Your task to perform on an android device: turn off improve location accuracy Image 0: 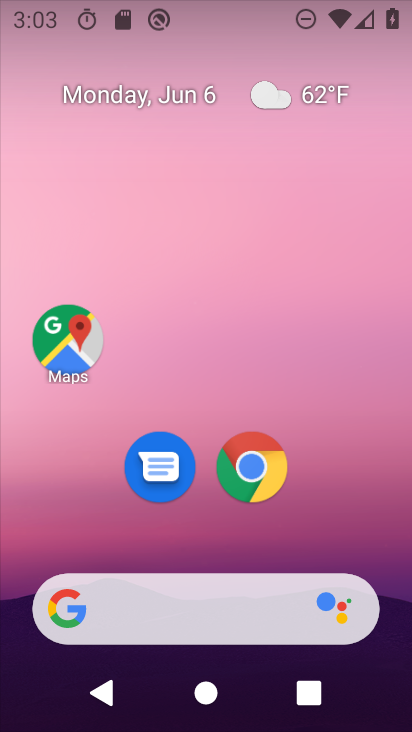
Step 0: drag from (212, 543) to (209, 103)
Your task to perform on an android device: turn off improve location accuracy Image 1: 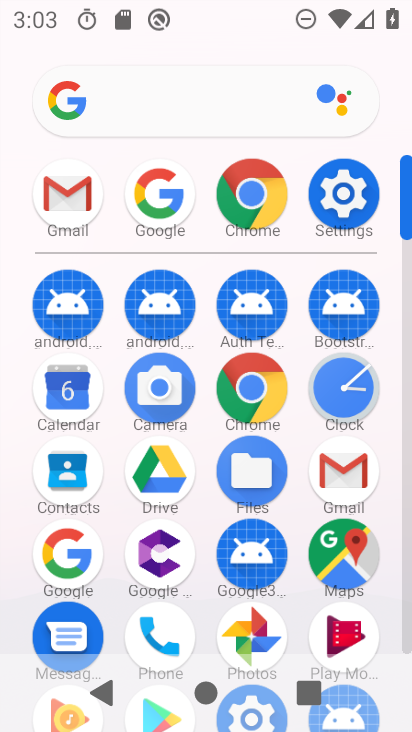
Step 1: click (350, 202)
Your task to perform on an android device: turn off improve location accuracy Image 2: 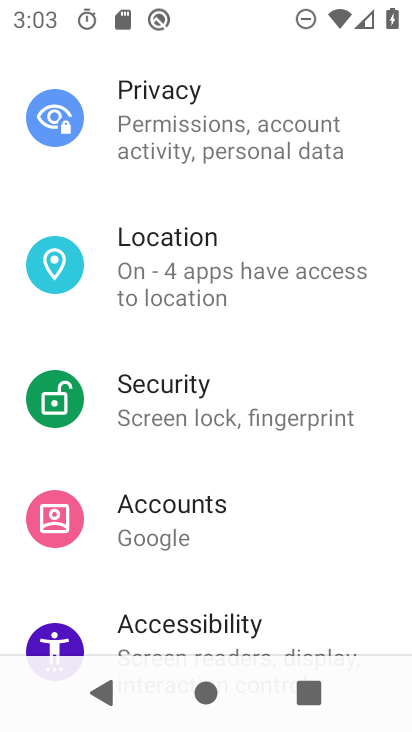
Step 2: drag from (239, 221) to (224, 433)
Your task to perform on an android device: turn off improve location accuracy Image 3: 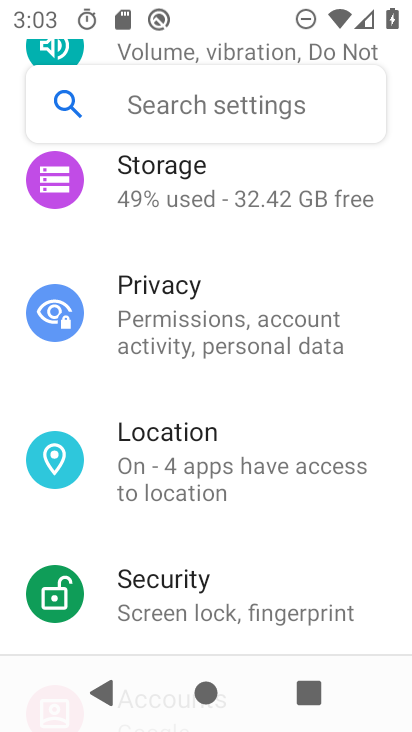
Step 3: drag from (212, 267) to (216, 532)
Your task to perform on an android device: turn off improve location accuracy Image 4: 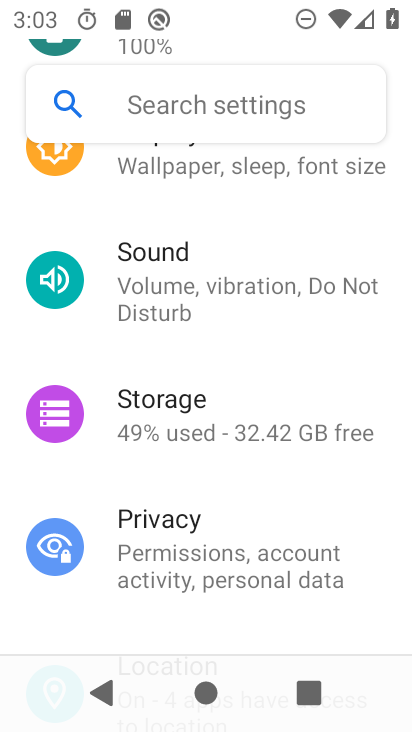
Step 4: drag from (203, 336) to (205, 591)
Your task to perform on an android device: turn off improve location accuracy Image 5: 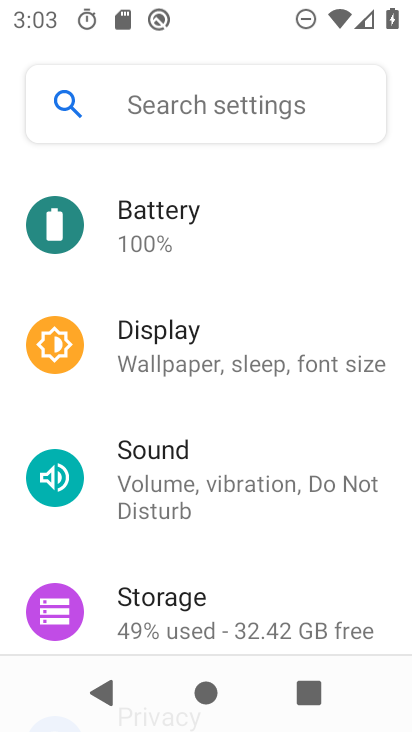
Step 5: drag from (194, 606) to (203, 288)
Your task to perform on an android device: turn off improve location accuracy Image 6: 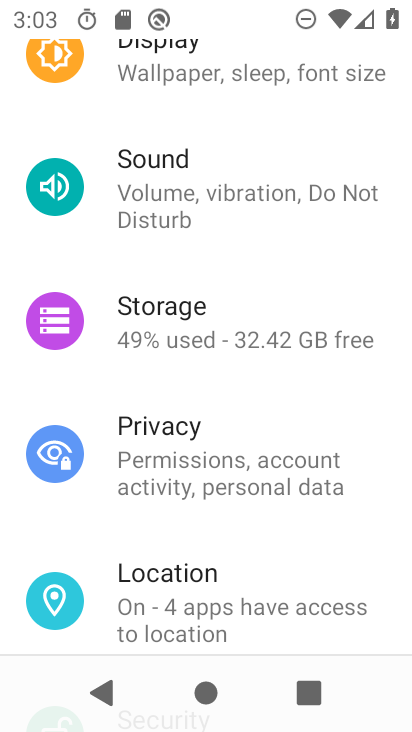
Step 6: click (181, 614)
Your task to perform on an android device: turn off improve location accuracy Image 7: 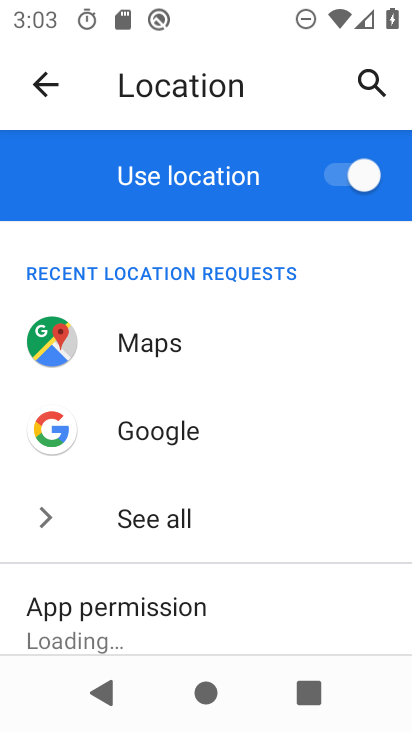
Step 7: drag from (170, 613) to (203, 268)
Your task to perform on an android device: turn off improve location accuracy Image 8: 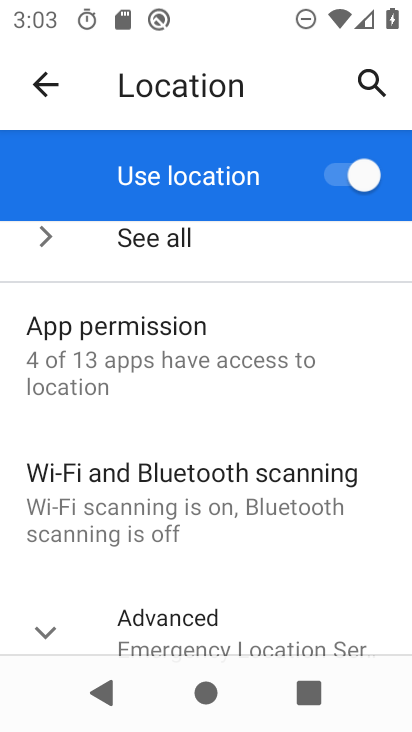
Step 8: drag from (203, 580) to (241, 336)
Your task to perform on an android device: turn off improve location accuracy Image 9: 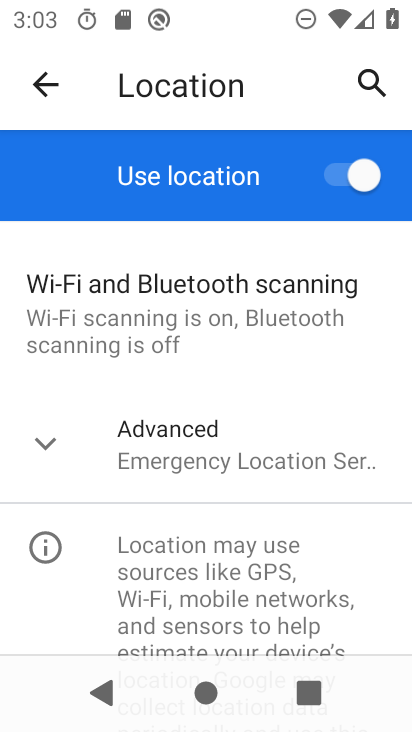
Step 9: click (166, 457)
Your task to perform on an android device: turn off improve location accuracy Image 10: 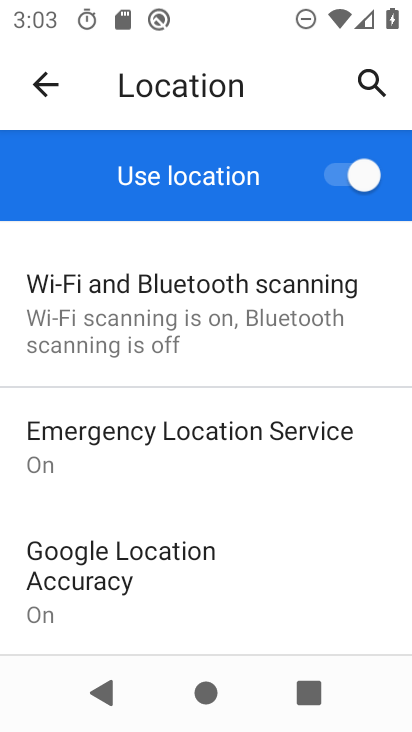
Step 10: click (154, 592)
Your task to perform on an android device: turn off improve location accuracy Image 11: 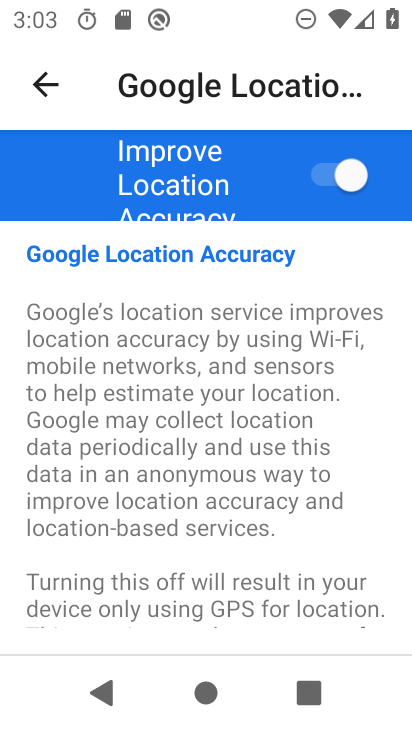
Step 11: click (324, 178)
Your task to perform on an android device: turn off improve location accuracy Image 12: 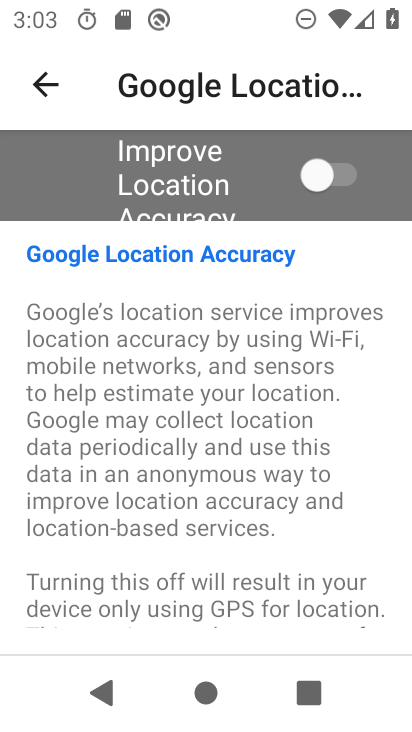
Step 12: task complete